Your task to perform on an android device: search for starred emails in the gmail app Image 0: 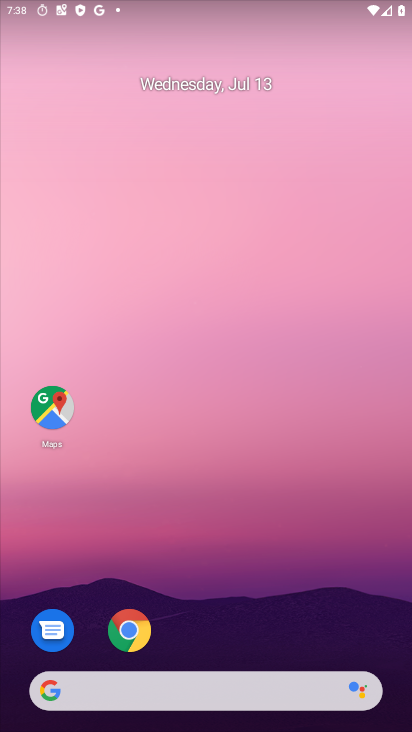
Step 0: click (215, 58)
Your task to perform on an android device: search for starred emails in the gmail app Image 1: 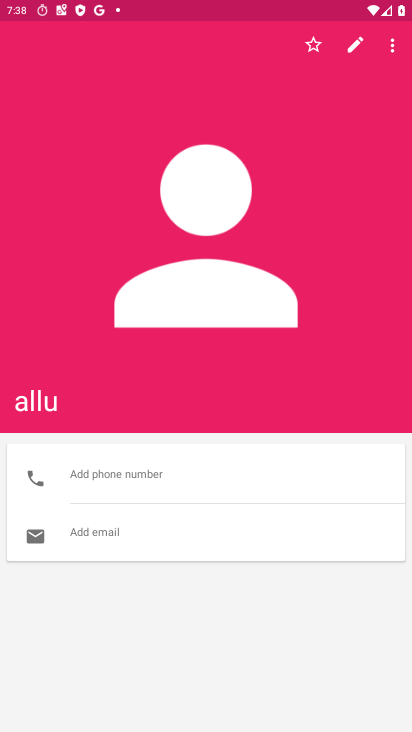
Step 1: press home button
Your task to perform on an android device: search for starred emails in the gmail app Image 2: 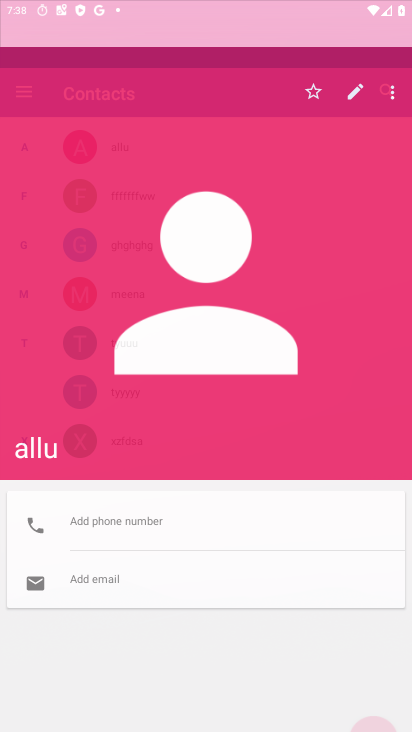
Step 2: drag from (350, 708) to (213, 42)
Your task to perform on an android device: search for starred emails in the gmail app Image 3: 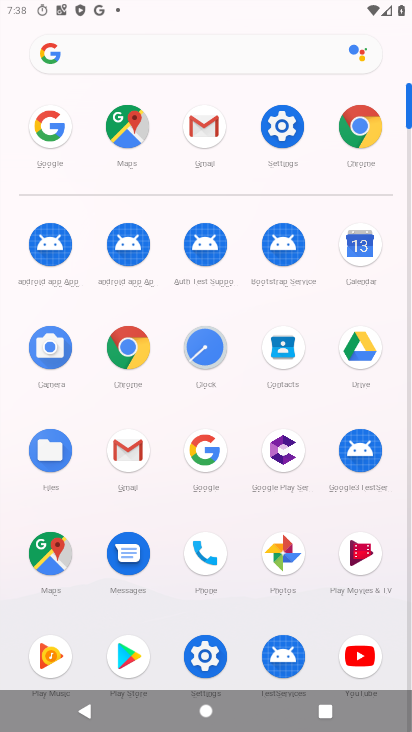
Step 3: click (132, 453)
Your task to perform on an android device: search for starred emails in the gmail app Image 4: 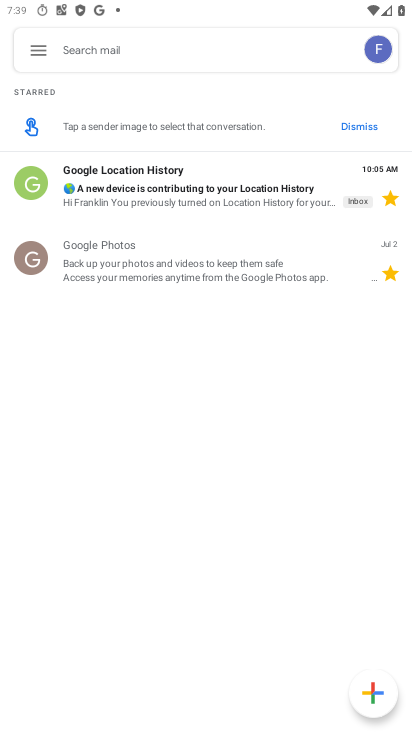
Step 4: click (32, 61)
Your task to perform on an android device: search for starred emails in the gmail app Image 5: 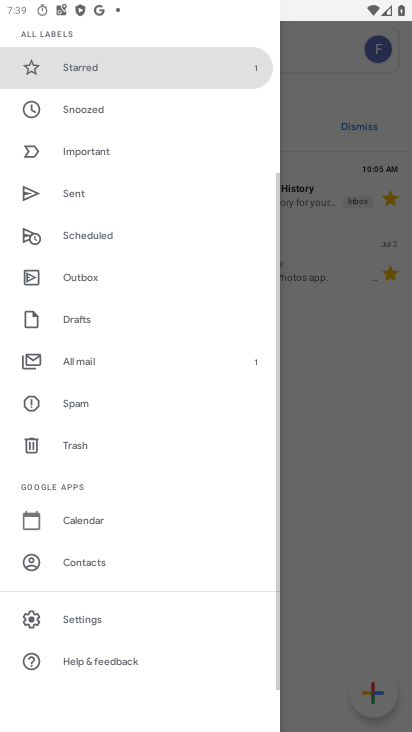
Step 5: click (136, 64)
Your task to perform on an android device: search for starred emails in the gmail app Image 6: 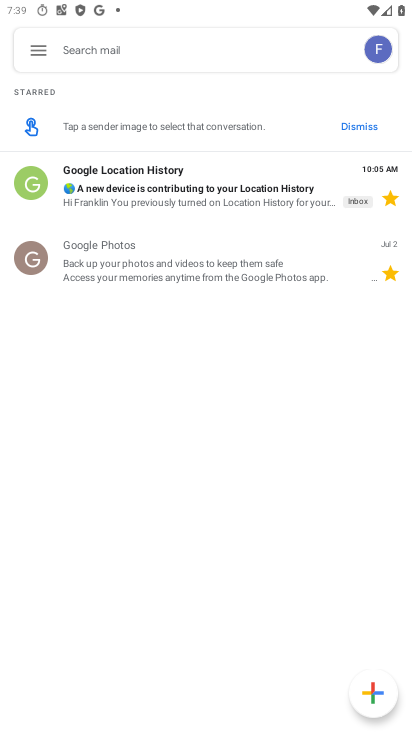
Step 6: task complete